Your task to perform on an android device: Turn on the flashlight Image 0: 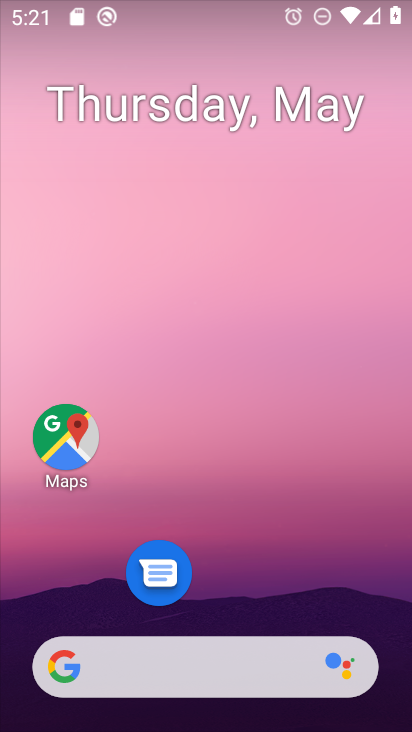
Step 0: drag from (258, 578) to (258, 248)
Your task to perform on an android device: Turn on the flashlight Image 1: 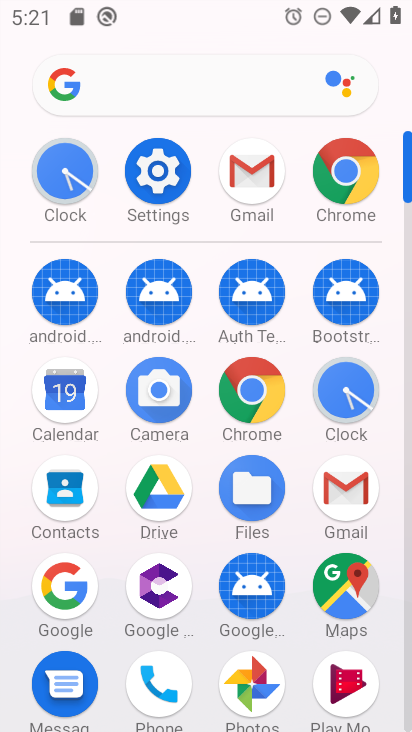
Step 1: click (165, 196)
Your task to perform on an android device: Turn on the flashlight Image 2: 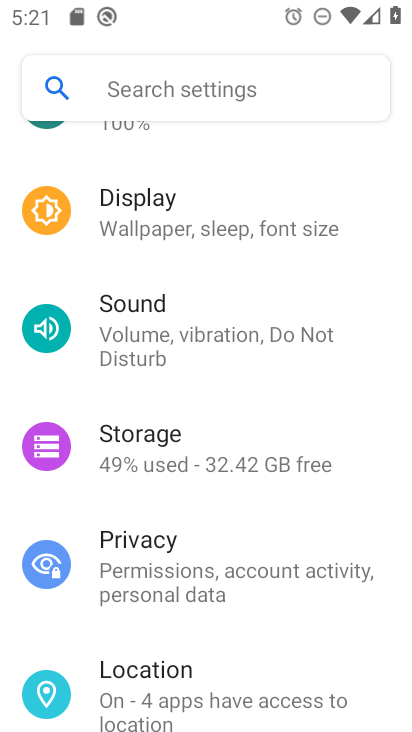
Step 2: task complete